Your task to perform on an android device: check android version Image 0: 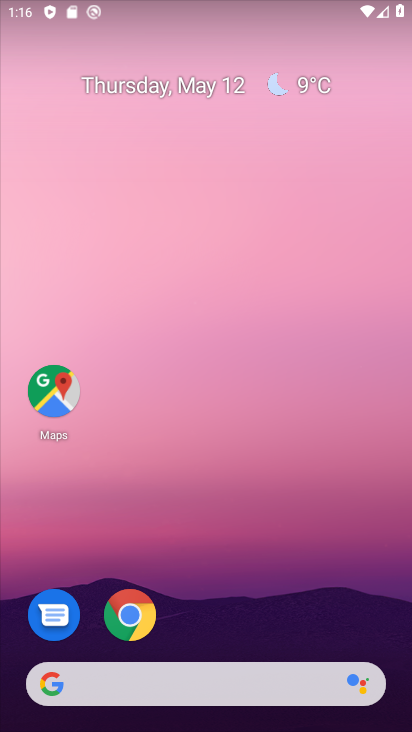
Step 0: drag from (206, 673) to (232, 25)
Your task to perform on an android device: check android version Image 1: 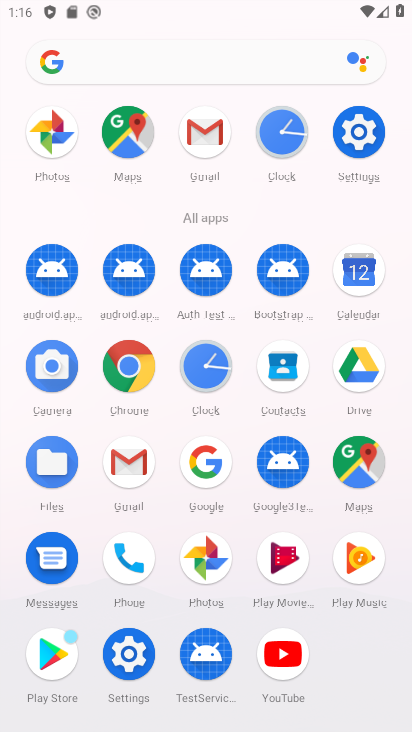
Step 1: click (141, 668)
Your task to perform on an android device: check android version Image 2: 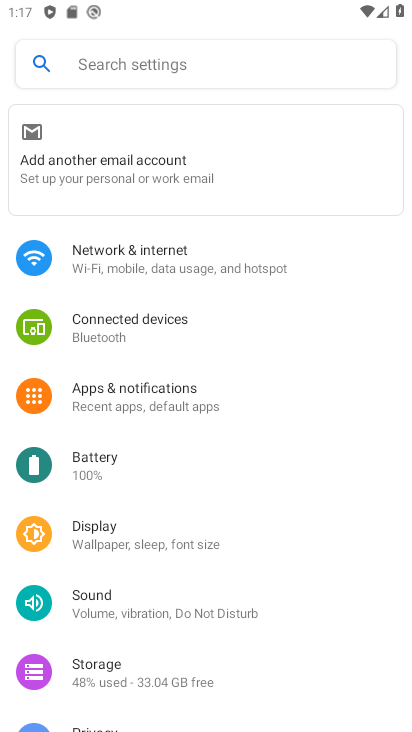
Step 2: drag from (142, 591) to (55, 0)
Your task to perform on an android device: check android version Image 3: 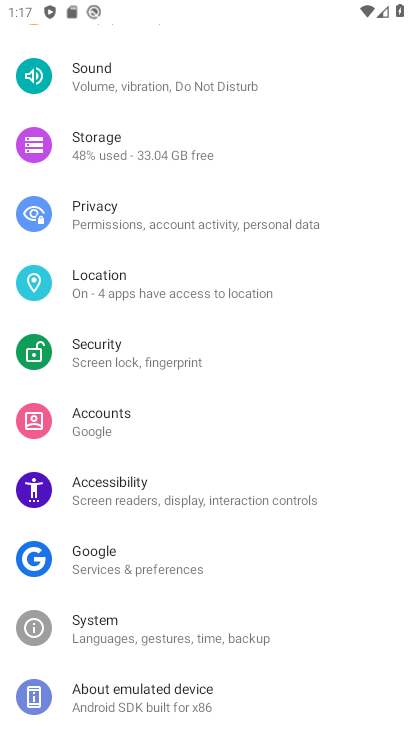
Step 3: drag from (189, 694) to (182, 199)
Your task to perform on an android device: check android version Image 4: 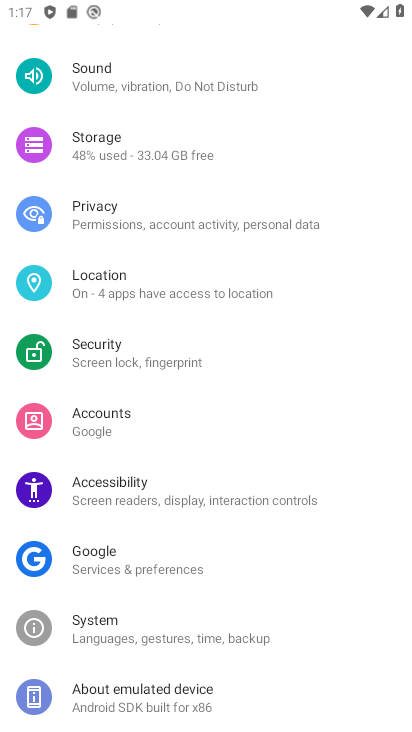
Step 4: click (205, 692)
Your task to perform on an android device: check android version Image 5: 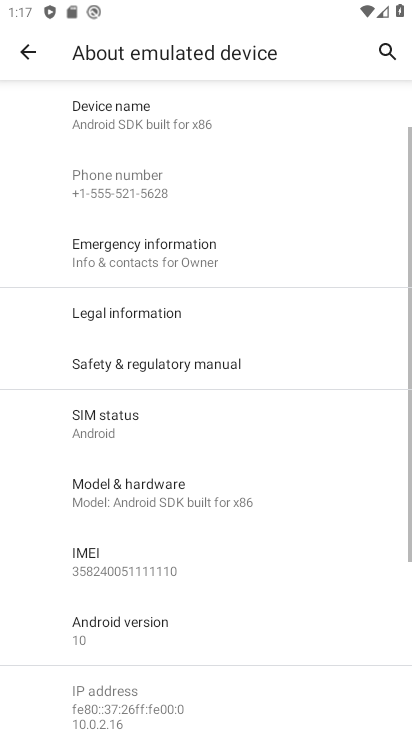
Step 5: click (145, 644)
Your task to perform on an android device: check android version Image 6: 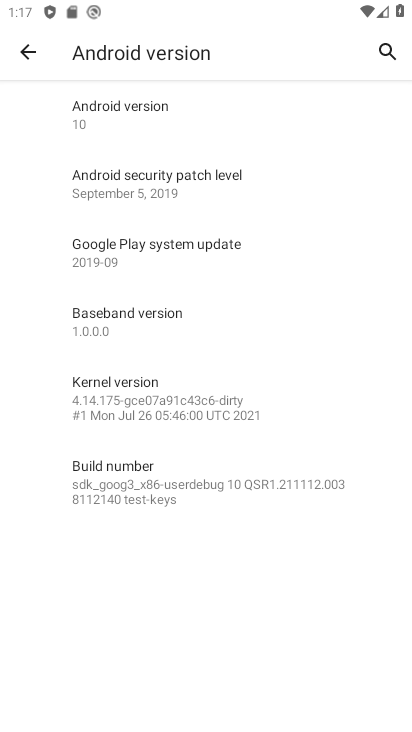
Step 6: task complete